Your task to perform on an android device: turn on data saver in the chrome app Image 0: 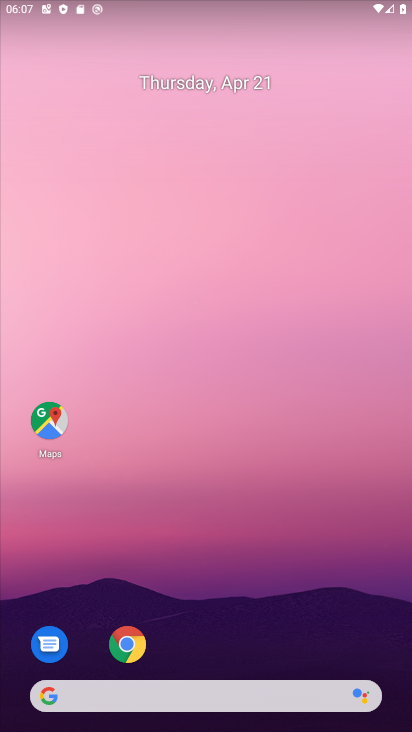
Step 0: drag from (221, 616) to (158, 50)
Your task to perform on an android device: turn on data saver in the chrome app Image 1: 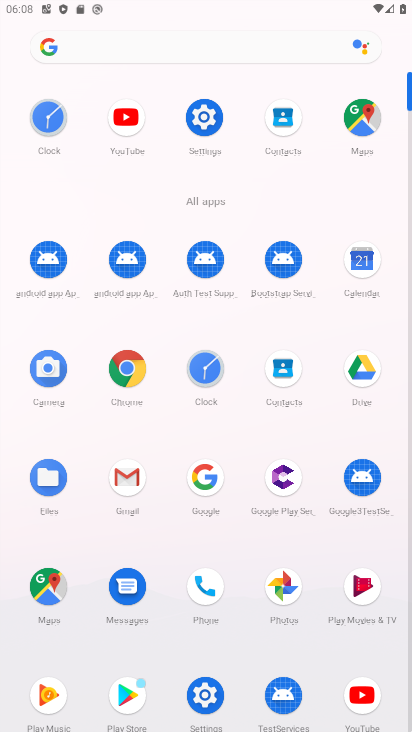
Step 1: click (118, 377)
Your task to perform on an android device: turn on data saver in the chrome app Image 2: 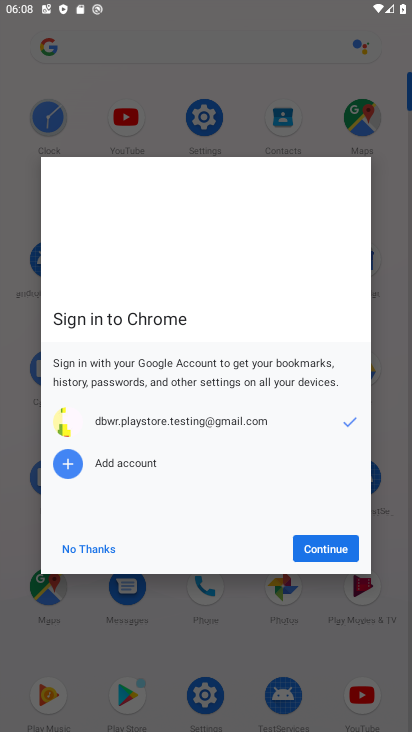
Step 2: click (338, 556)
Your task to perform on an android device: turn on data saver in the chrome app Image 3: 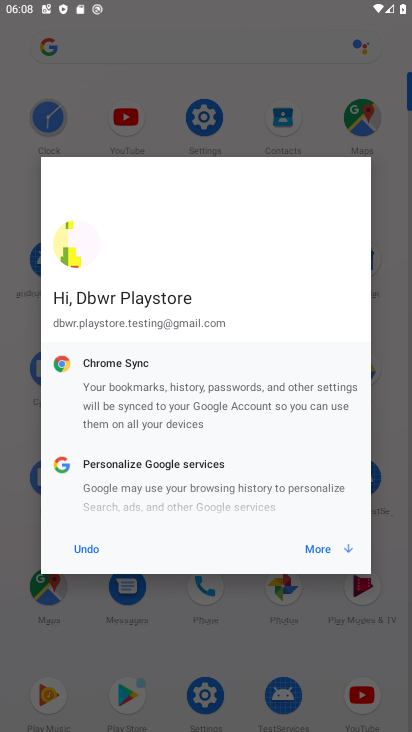
Step 3: click (338, 556)
Your task to perform on an android device: turn on data saver in the chrome app Image 4: 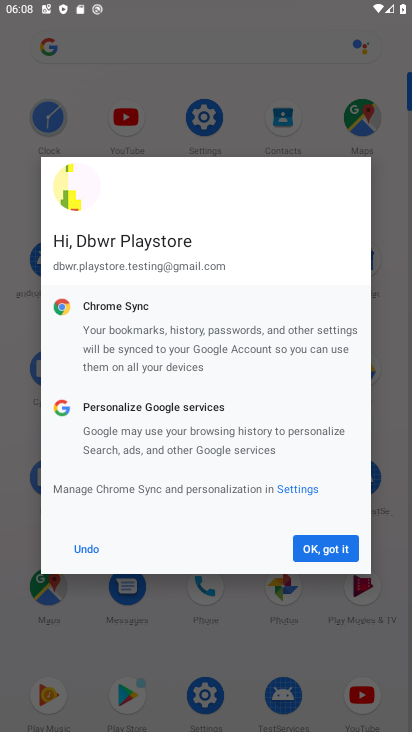
Step 4: click (337, 552)
Your task to perform on an android device: turn on data saver in the chrome app Image 5: 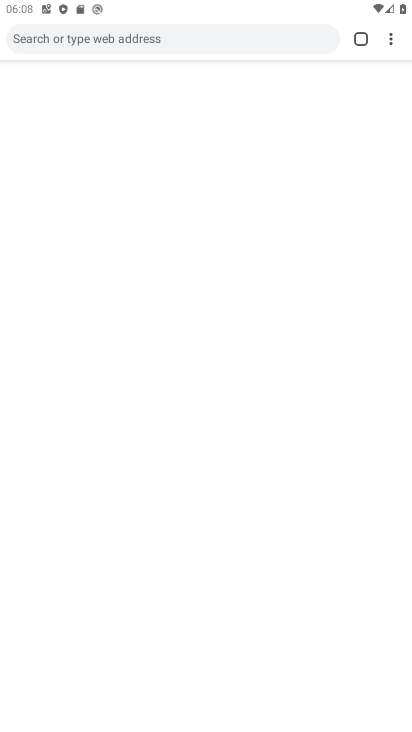
Step 5: click (337, 552)
Your task to perform on an android device: turn on data saver in the chrome app Image 6: 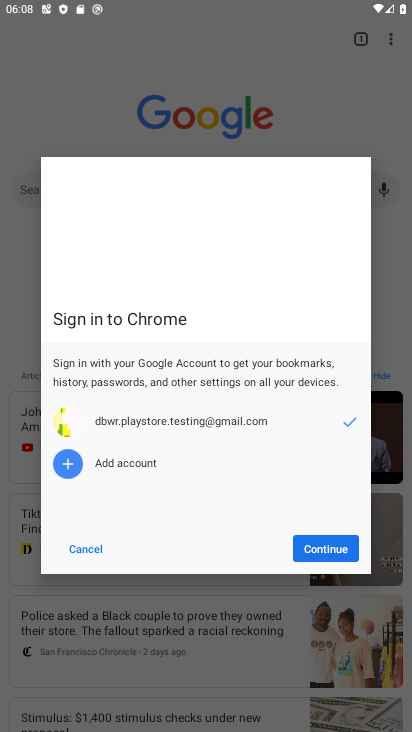
Step 6: click (90, 545)
Your task to perform on an android device: turn on data saver in the chrome app Image 7: 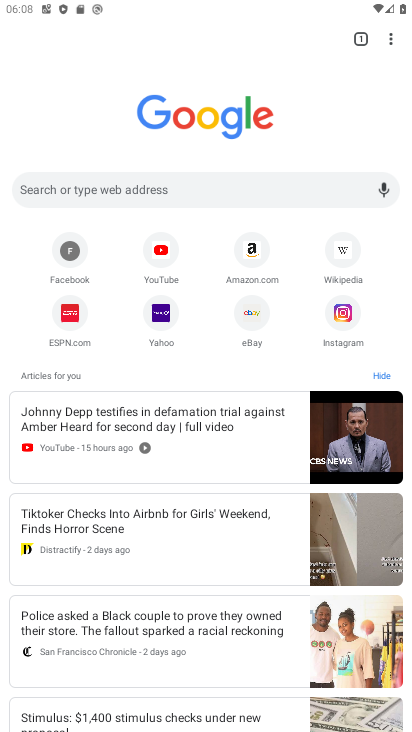
Step 7: drag from (392, 26) to (251, 337)
Your task to perform on an android device: turn on data saver in the chrome app Image 8: 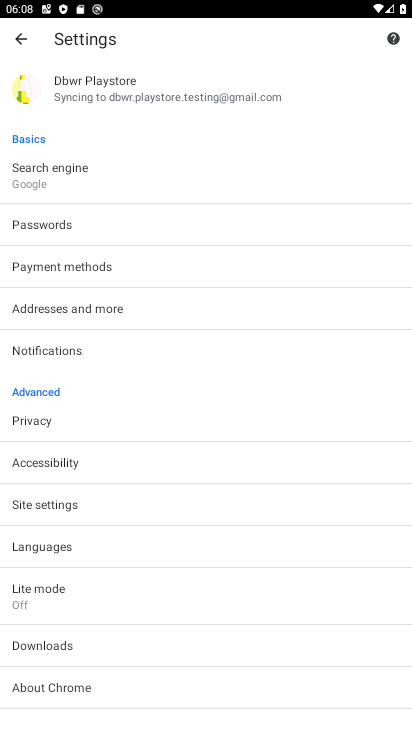
Step 8: click (38, 589)
Your task to perform on an android device: turn on data saver in the chrome app Image 9: 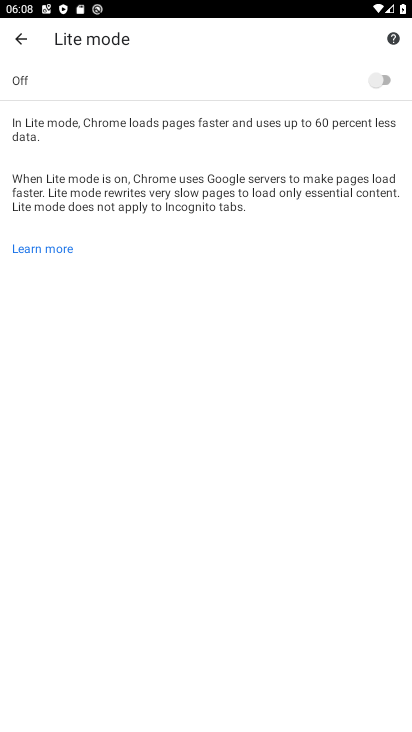
Step 9: click (388, 74)
Your task to perform on an android device: turn on data saver in the chrome app Image 10: 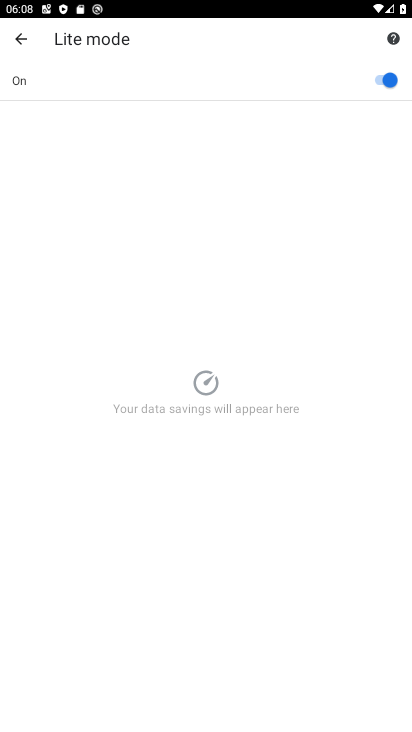
Step 10: task complete